Your task to perform on an android device: Open Maps and search for coffee Image 0: 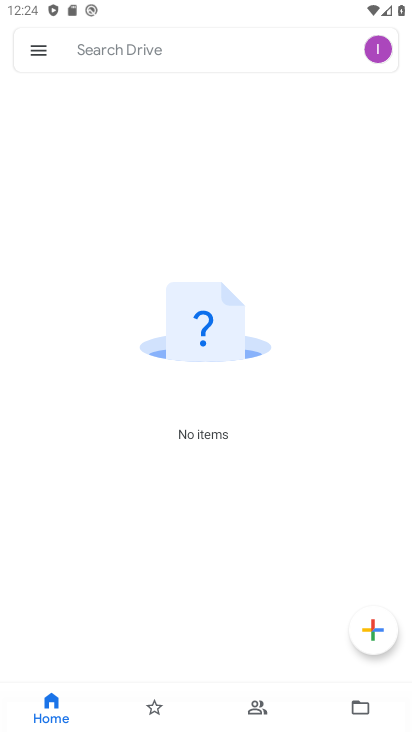
Step 0: press home button
Your task to perform on an android device: Open Maps and search for coffee Image 1: 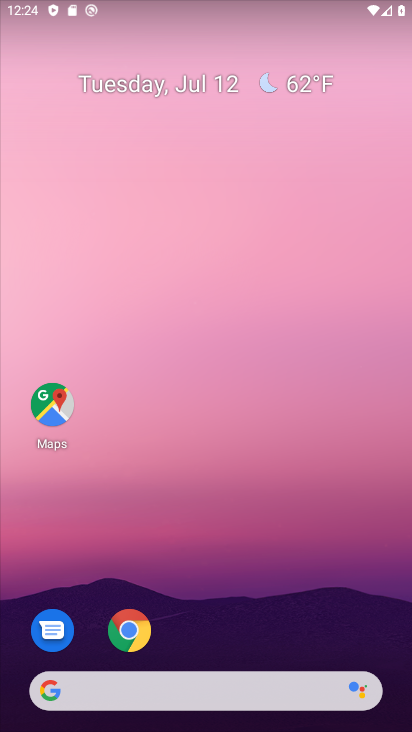
Step 1: drag from (234, 532) to (139, 2)
Your task to perform on an android device: Open Maps and search for coffee Image 2: 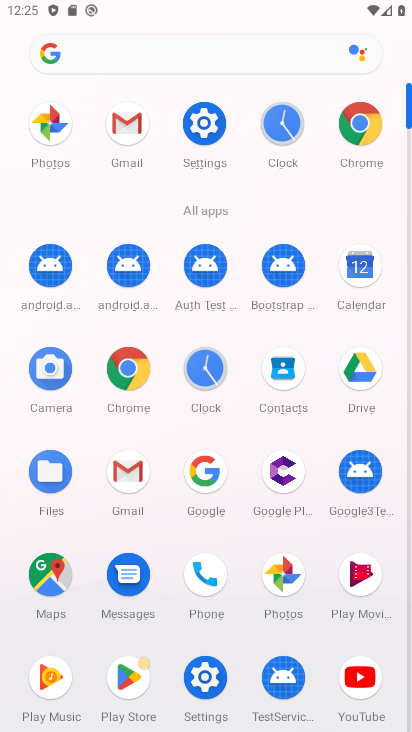
Step 2: click (42, 573)
Your task to perform on an android device: Open Maps and search for coffee Image 3: 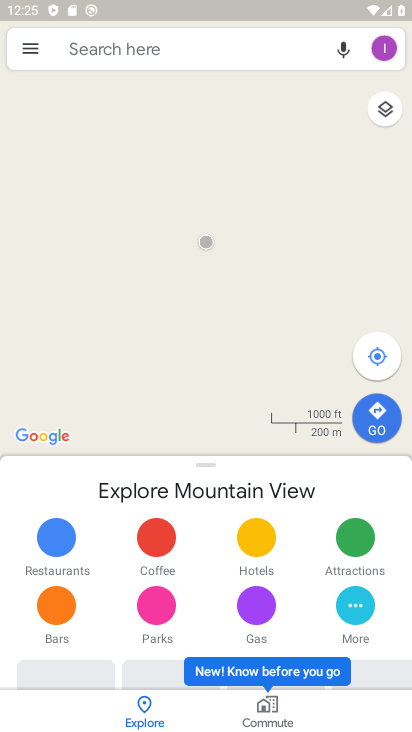
Step 3: click (114, 49)
Your task to perform on an android device: Open Maps and search for coffee Image 4: 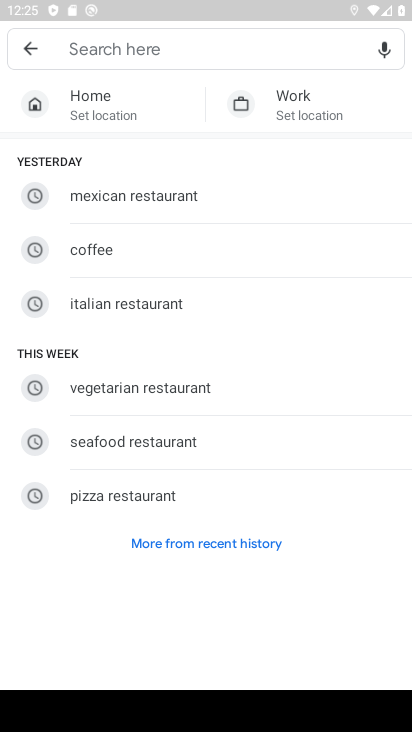
Step 4: type "coffee"
Your task to perform on an android device: Open Maps and search for coffee Image 5: 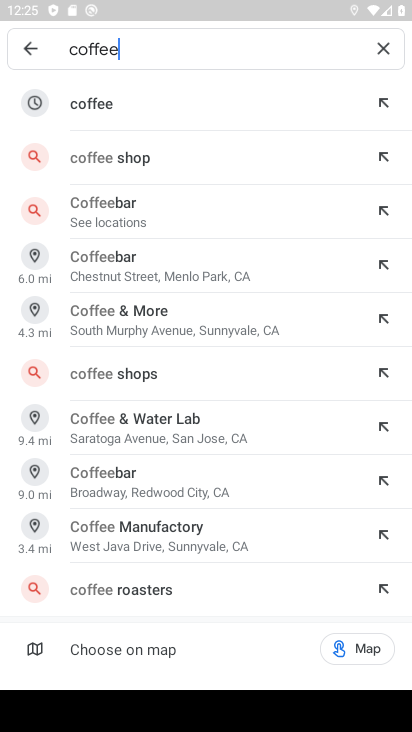
Step 5: click (99, 100)
Your task to perform on an android device: Open Maps and search for coffee Image 6: 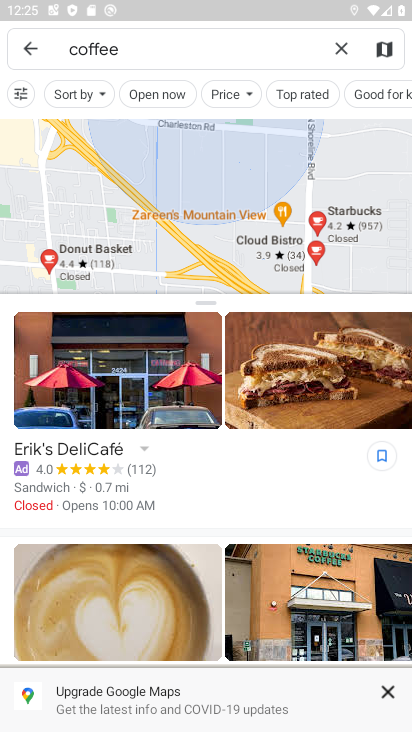
Step 6: task complete